Your task to perform on an android device: delete location history Image 0: 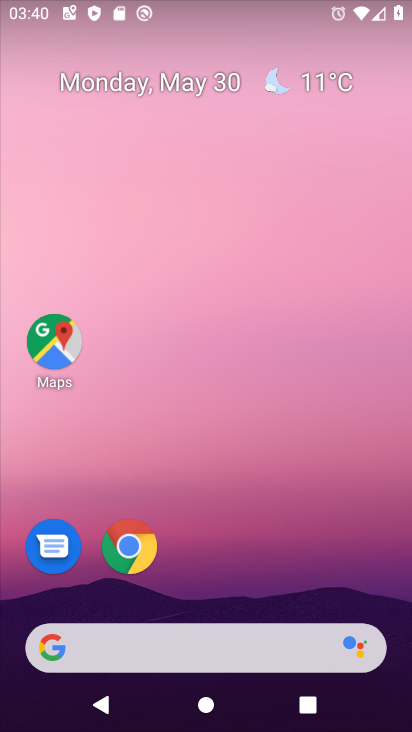
Step 0: press home button
Your task to perform on an android device: delete location history Image 1: 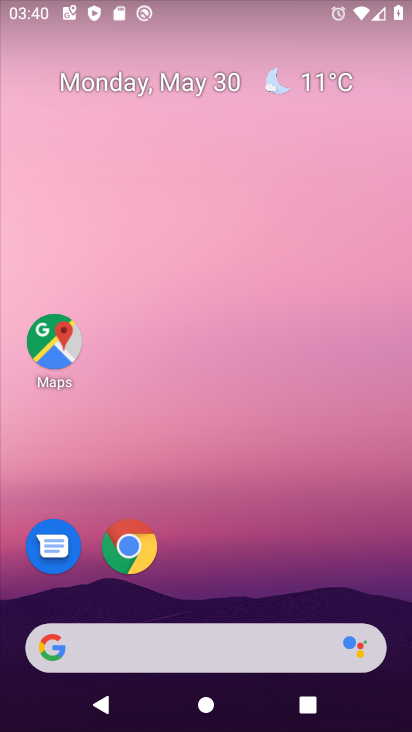
Step 1: drag from (225, 594) to (245, 68)
Your task to perform on an android device: delete location history Image 2: 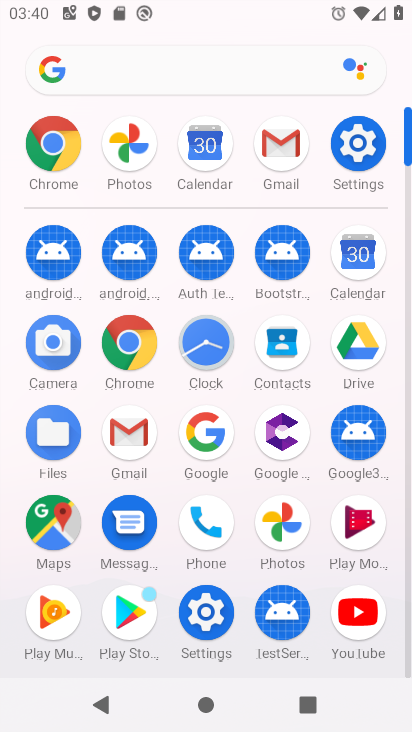
Step 2: click (47, 514)
Your task to perform on an android device: delete location history Image 3: 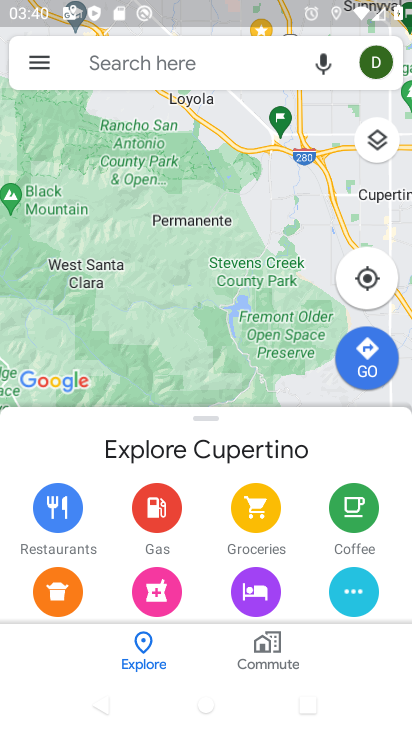
Step 3: click (37, 62)
Your task to perform on an android device: delete location history Image 4: 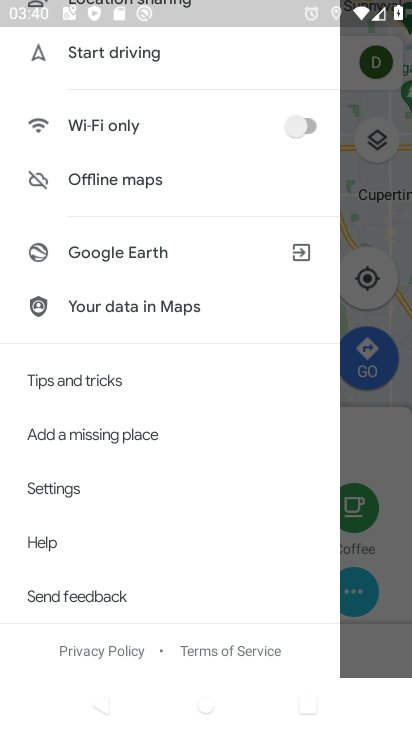
Step 4: drag from (161, 127) to (208, 644)
Your task to perform on an android device: delete location history Image 5: 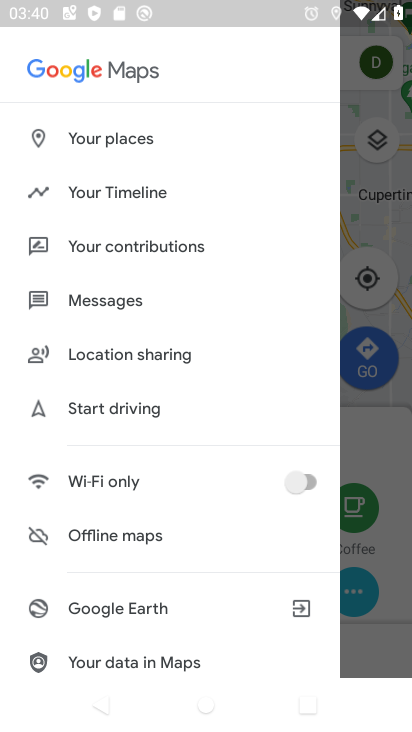
Step 5: click (180, 187)
Your task to perform on an android device: delete location history Image 6: 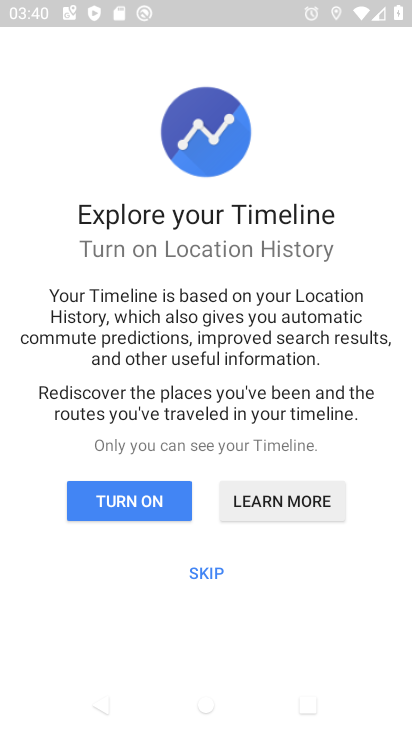
Step 6: click (126, 504)
Your task to perform on an android device: delete location history Image 7: 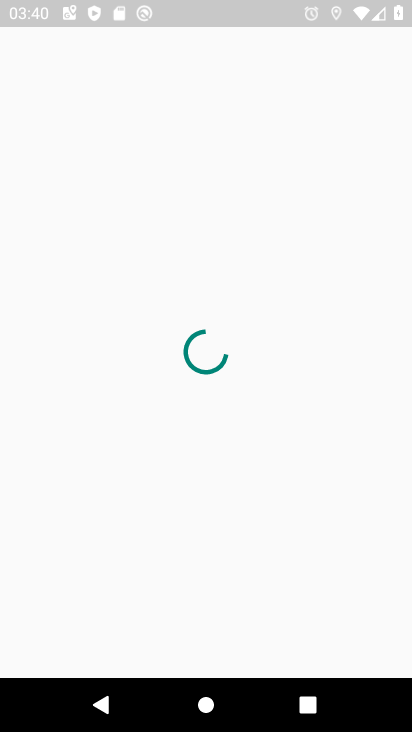
Step 7: click (392, 53)
Your task to perform on an android device: delete location history Image 8: 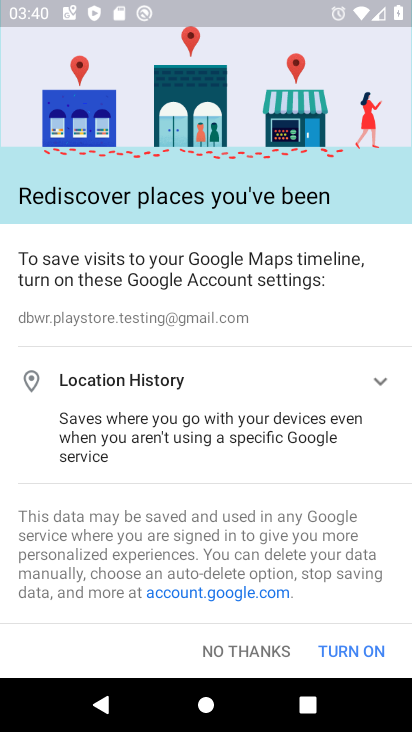
Step 8: click (346, 645)
Your task to perform on an android device: delete location history Image 9: 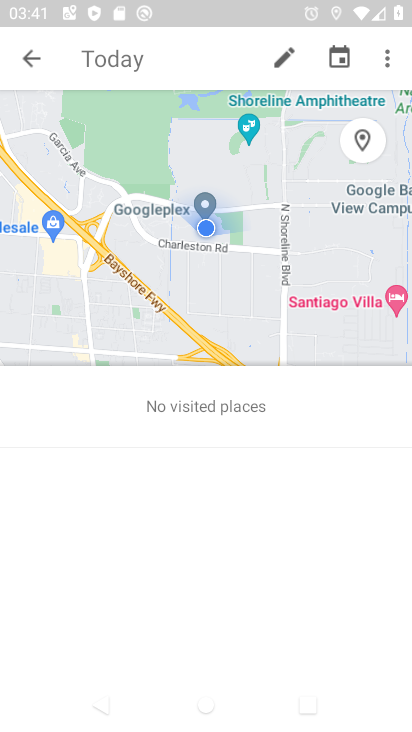
Step 9: task complete